Your task to perform on an android device: turn off airplane mode Image 0: 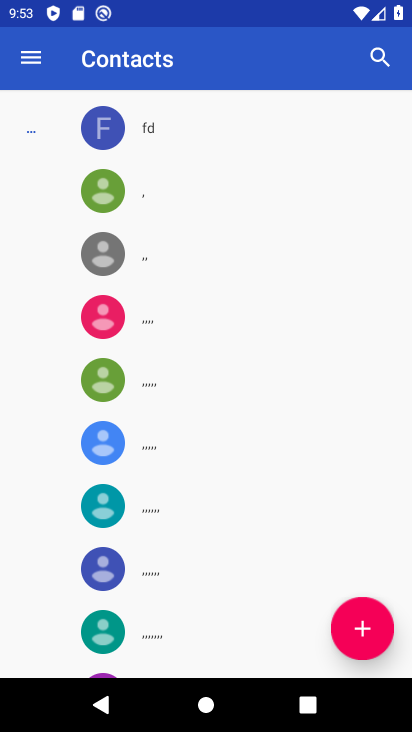
Step 0: press home button
Your task to perform on an android device: turn off airplane mode Image 1: 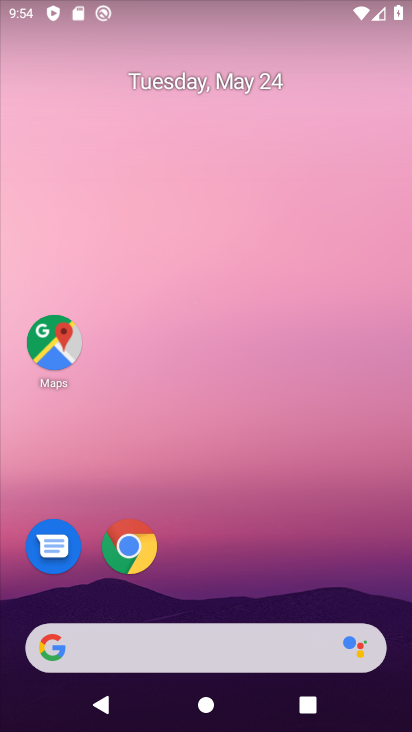
Step 1: drag from (296, 587) to (206, 39)
Your task to perform on an android device: turn off airplane mode Image 2: 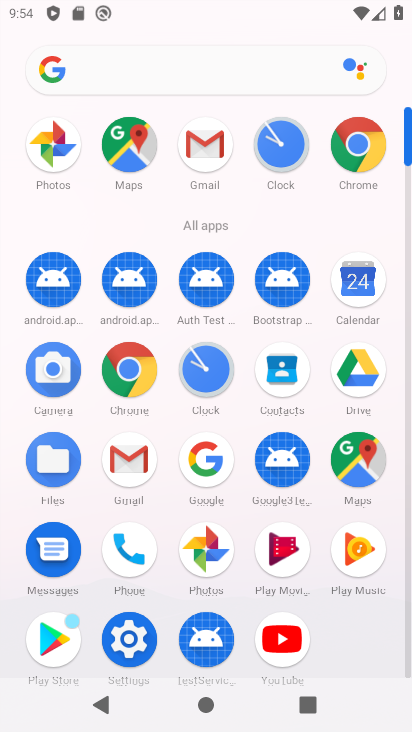
Step 2: click (141, 637)
Your task to perform on an android device: turn off airplane mode Image 3: 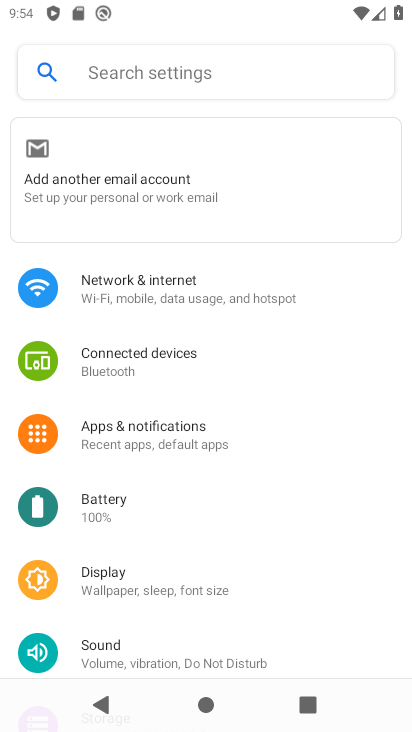
Step 3: click (271, 306)
Your task to perform on an android device: turn off airplane mode Image 4: 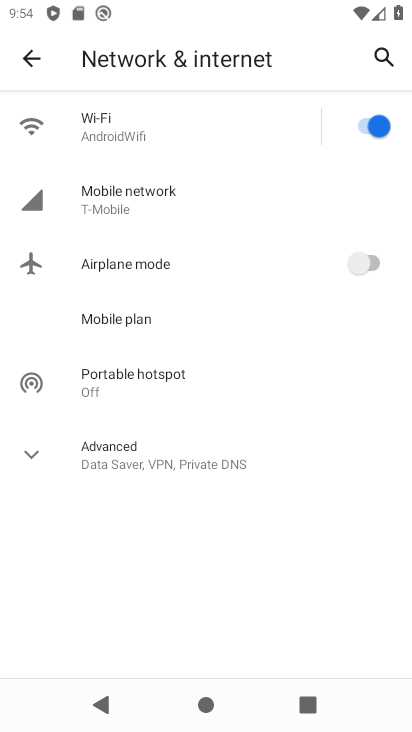
Step 4: task complete